Your task to perform on an android device: Go to network settings Image 0: 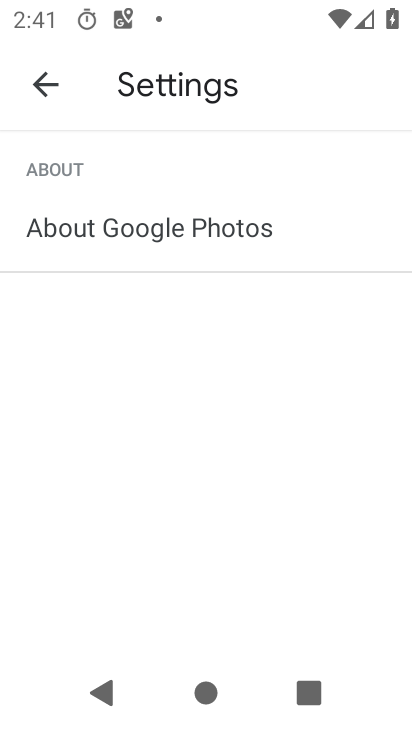
Step 0: press home button
Your task to perform on an android device: Go to network settings Image 1: 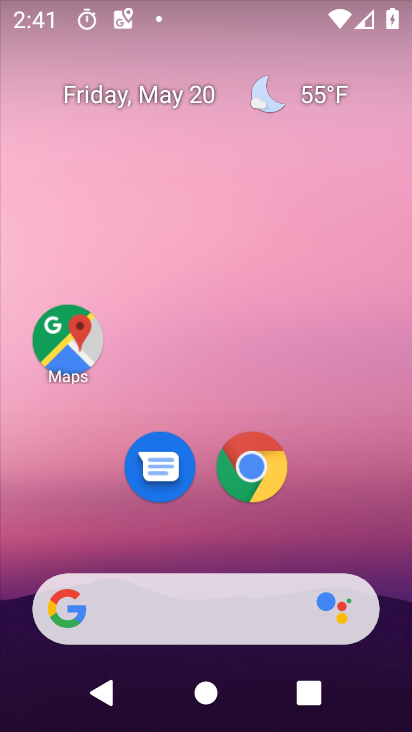
Step 1: drag from (194, 538) to (225, 58)
Your task to perform on an android device: Go to network settings Image 2: 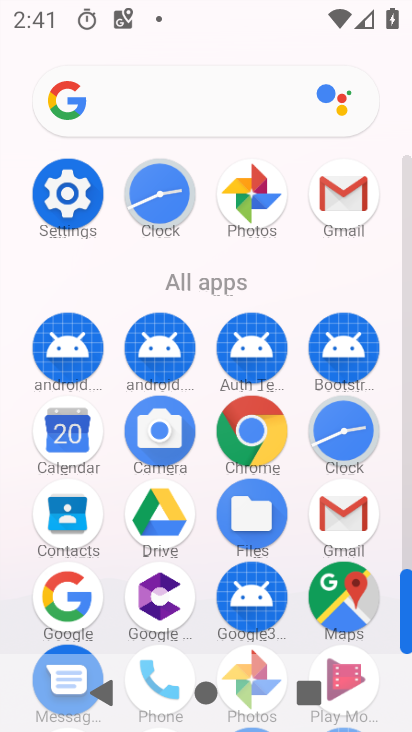
Step 2: click (80, 200)
Your task to perform on an android device: Go to network settings Image 3: 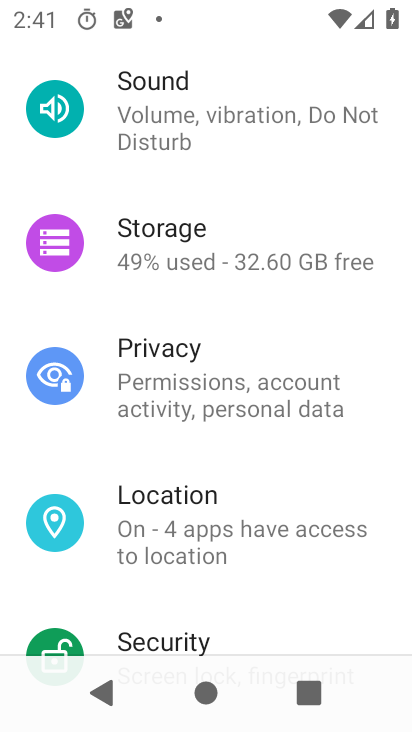
Step 3: drag from (187, 201) to (262, 623)
Your task to perform on an android device: Go to network settings Image 4: 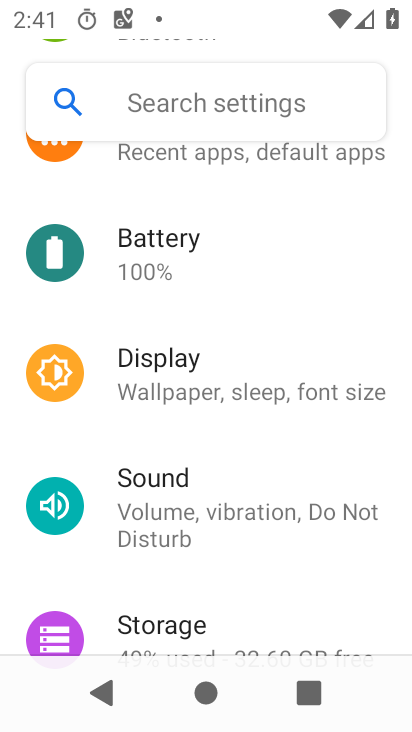
Step 4: drag from (255, 321) to (251, 639)
Your task to perform on an android device: Go to network settings Image 5: 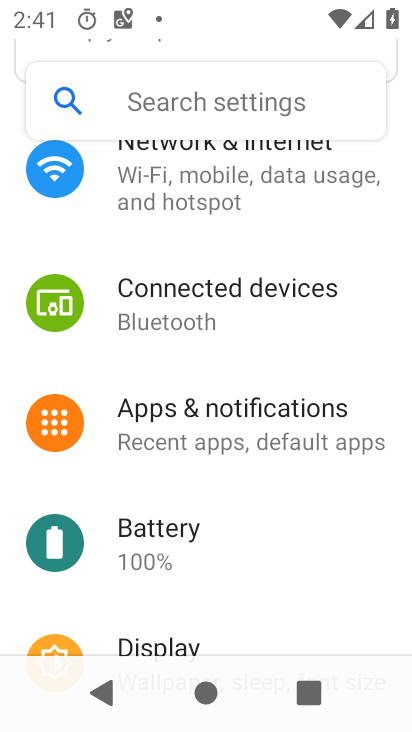
Step 5: drag from (216, 308) to (223, 578)
Your task to perform on an android device: Go to network settings Image 6: 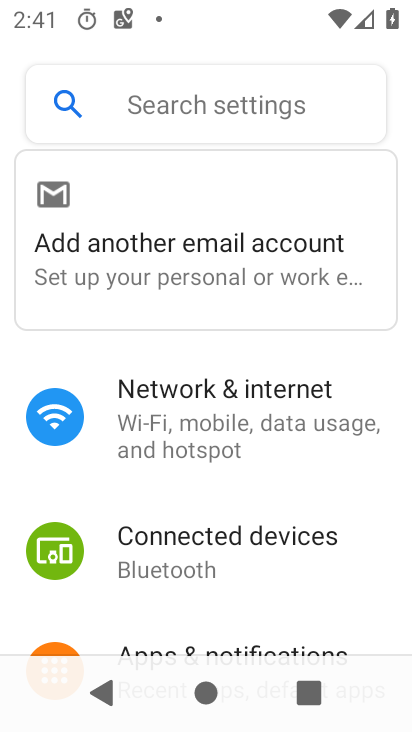
Step 6: click (188, 410)
Your task to perform on an android device: Go to network settings Image 7: 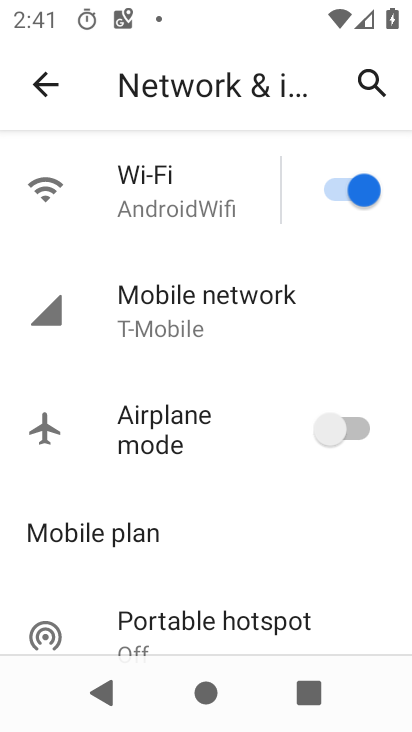
Step 7: click (150, 295)
Your task to perform on an android device: Go to network settings Image 8: 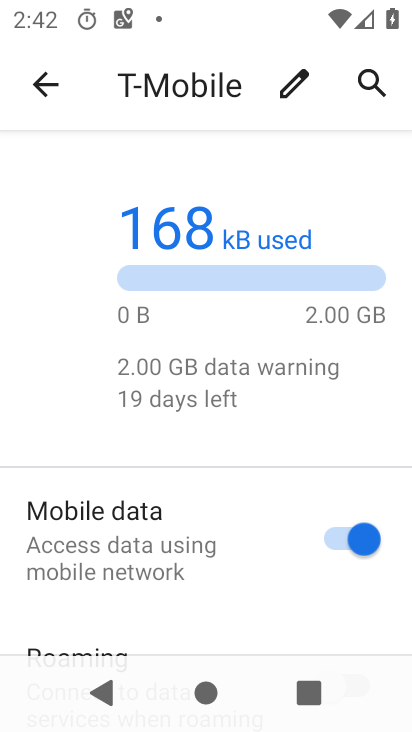
Step 8: task complete